Your task to perform on an android device: Open Youtube and go to the subscriptions tab Image 0: 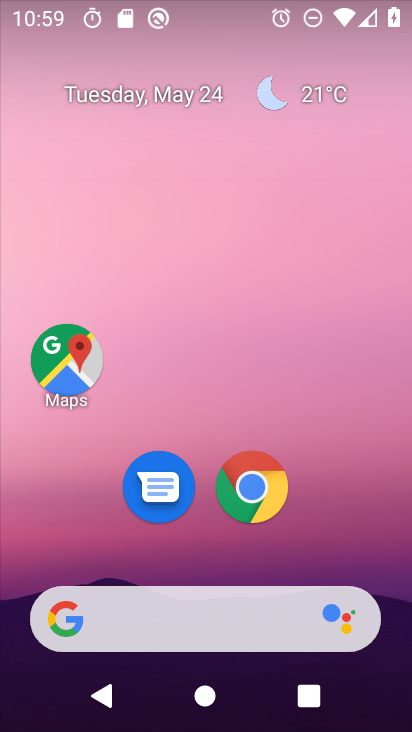
Step 0: drag from (381, 568) to (369, 18)
Your task to perform on an android device: Open Youtube and go to the subscriptions tab Image 1: 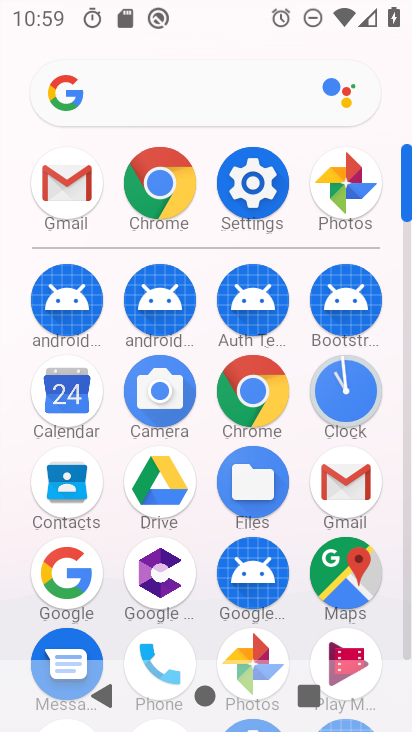
Step 1: click (404, 553)
Your task to perform on an android device: Open Youtube and go to the subscriptions tab Image 2: 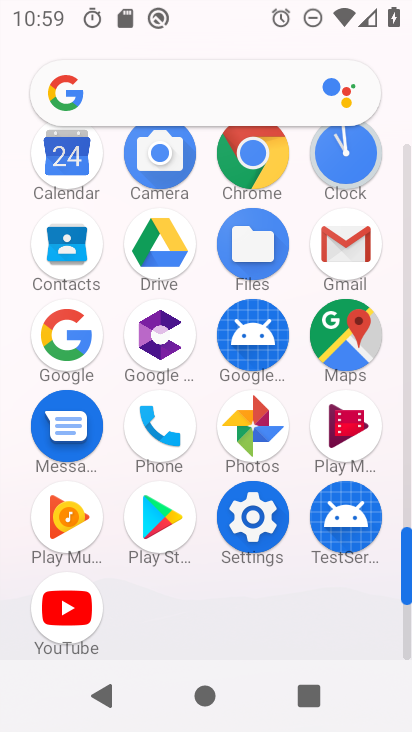
Step 2: click (77, 623)
Your task to perform on an android device: Open Youtube and go to the subscriptions tab Image 3: 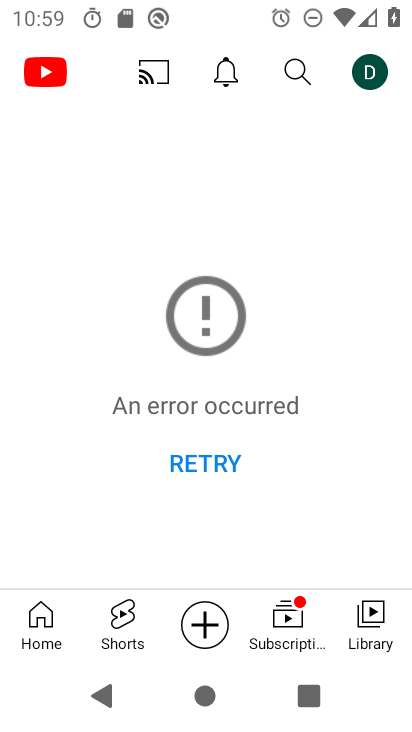
Step 3: click (294, 635)
Your task to perform on an android device: Open Youtube and go to the subscriptions tab Image 4: 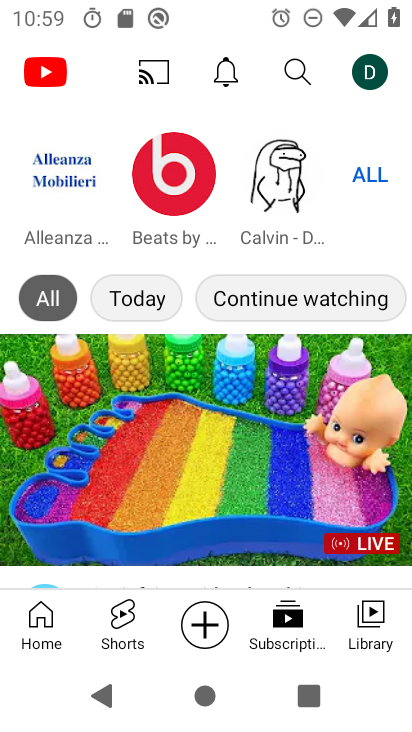
Step 4: task complete